Your task to perform on an android device: change text size in settings app Image 0: 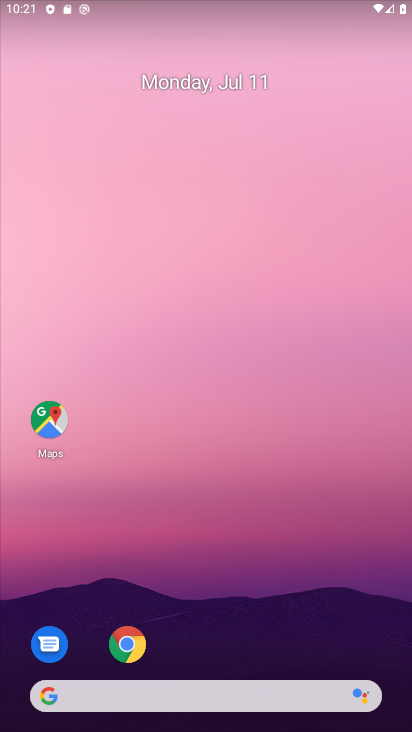
Step 0: click (182, 151)
Your task to perform on an android device: change text size in settings app Image 1: 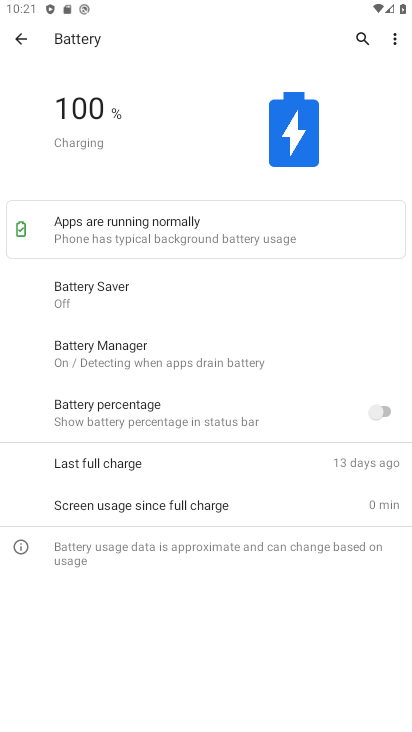
Step 1: click (14, 33)
Your task to perform on an android device: change text size in settings app Image 2: 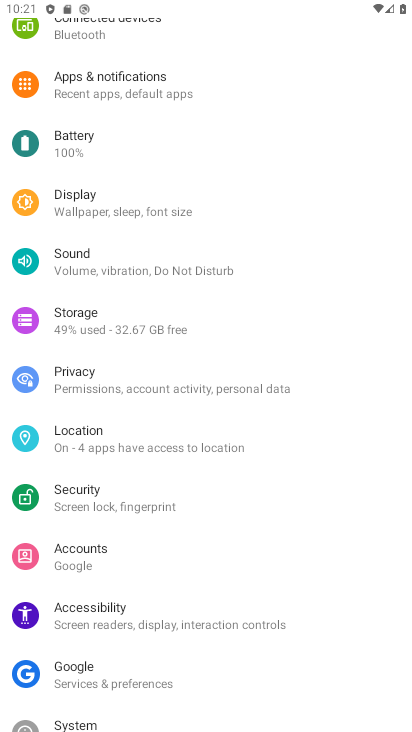
Step 2: click (82, 210)
Your task to perform on an android device: change text size in settings app Image 3: 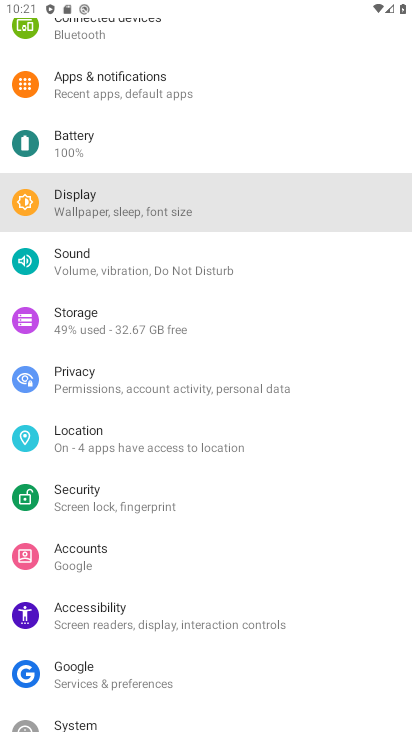
Step 3: click (82, 210)
Your task to perform on an android device: change text size in settings app Image 4: 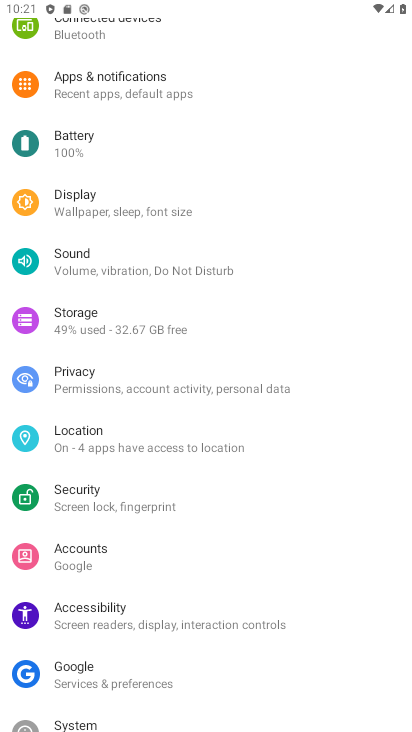
Step 4: click (82, 210)
Your task to perform on an android device: change text size in settings app Image 5: 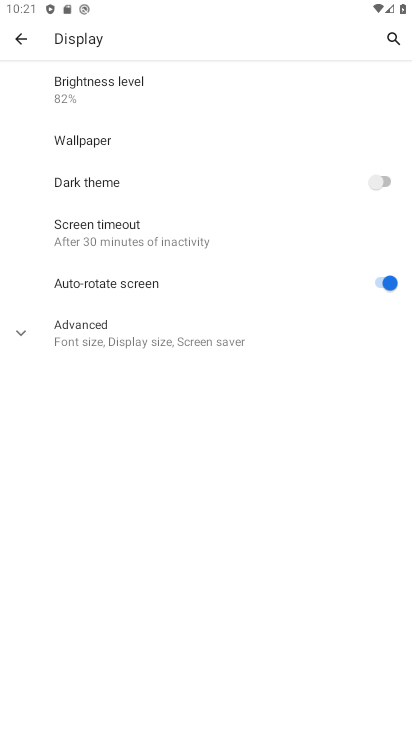
Step 5: click (101, 227)
Your task to perform on an android device: change text size in settings app Image 6: 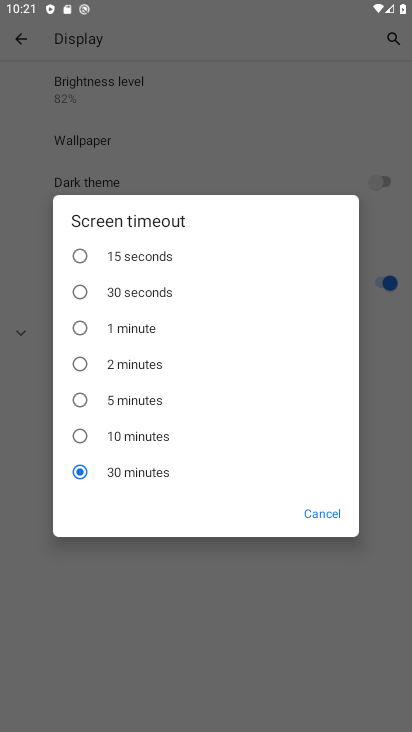
Step 6: click (336, 504)
Your task to perform on an android device: change text size in settings app Image 7: 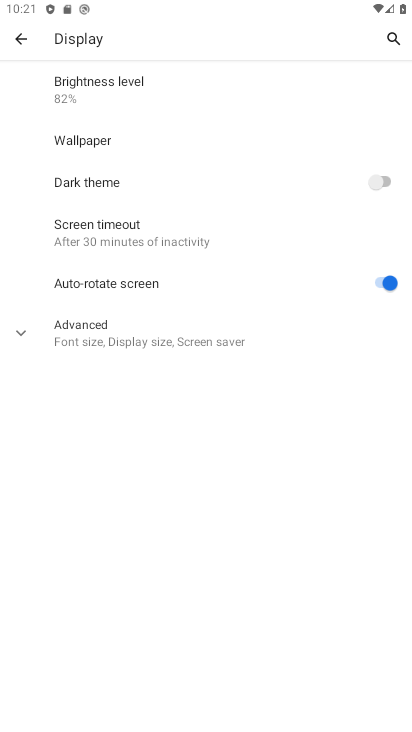
Step 7: click (95, 326)
Your task to perform on an android device: change text size in settings app Image 8: 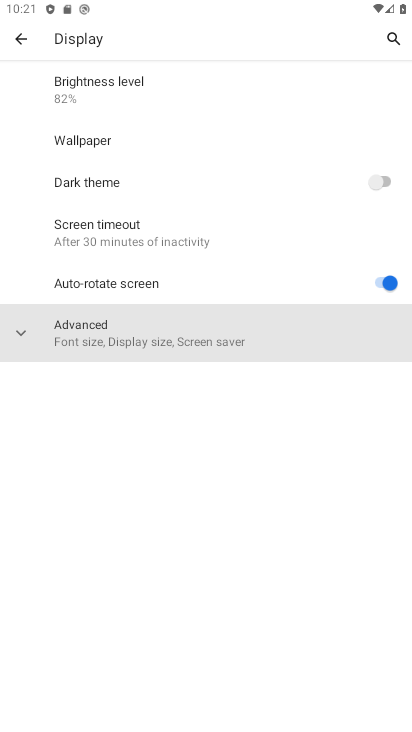
Step 8: click (95, 326)
Your task to perform on an android device: change text size in settings app Image 9: 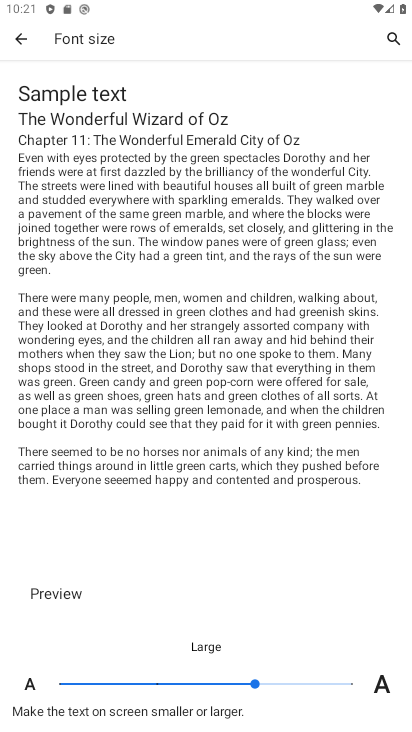
Step 9: click (345, 680)
Your task to perform on an android device: change text size in settings app Image 10: 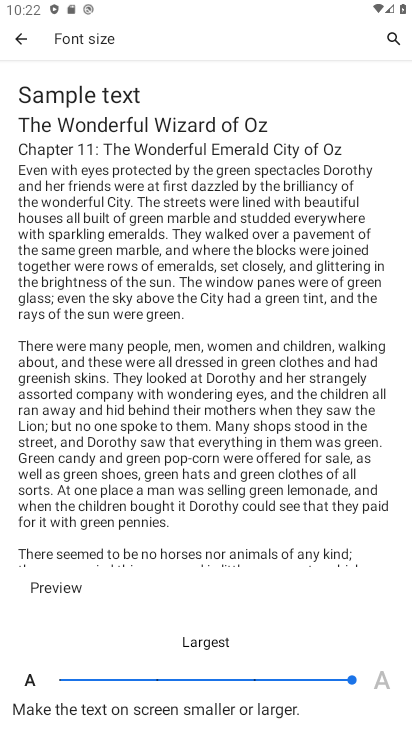
Step 10: task complete